Your task to perform on an android device: Search for pizza restaurants on Maps Image 0: 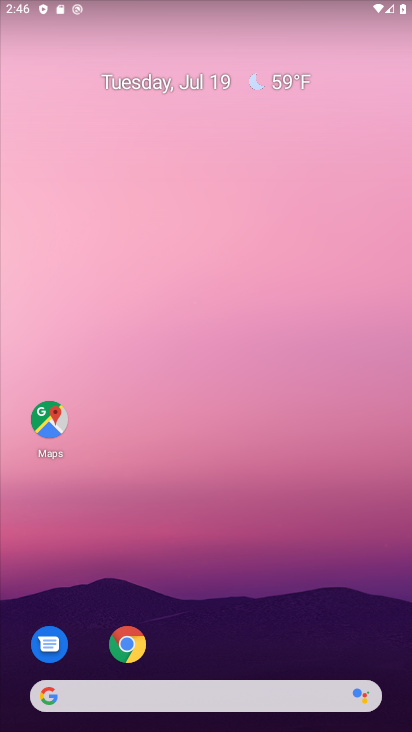
Step 0: drag from (282, 470) to (213, 20)
Your task to perform on an android device: Search for pizza restaurants on Maps Image 1: 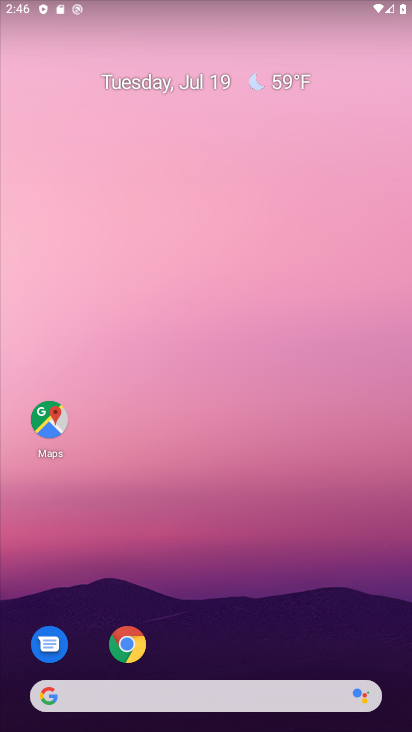
Step 1: drag from (211, 608) to (151, 188)
Your task to perform on an android device: Search for pizza restaurants on Maps Image 2: 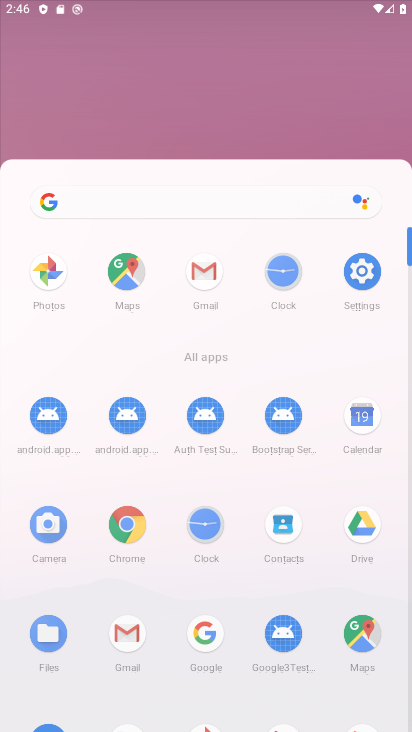
Step 2: drag from (135, 714) to (107, 180)
Your task to perform on an android device: Search for pizza restaurants on Maps Image 3: 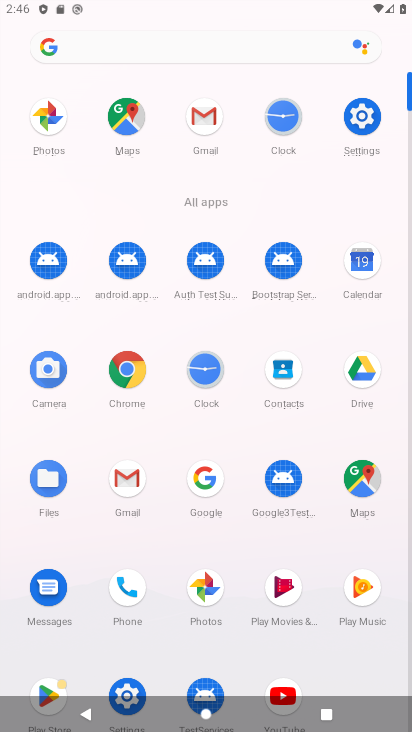
Step 3: click (119, 116)
Your task to perform on an android device: Search for pizza restaurants on Maps Image 4: 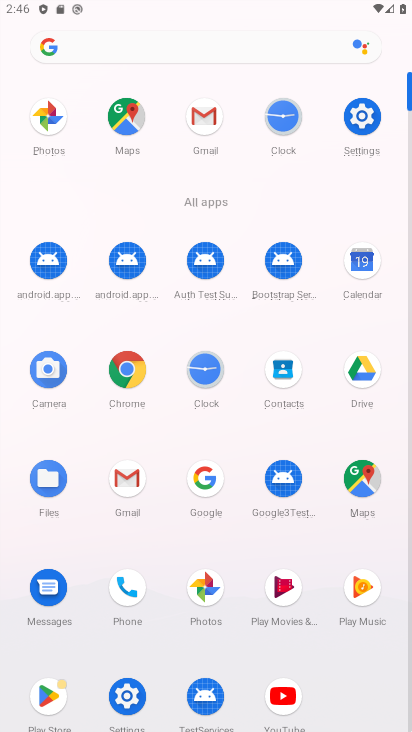
Step 4: click (131, 126)
Your task to perform on an android device: Search for pizza restaurants on Maps Image 5: 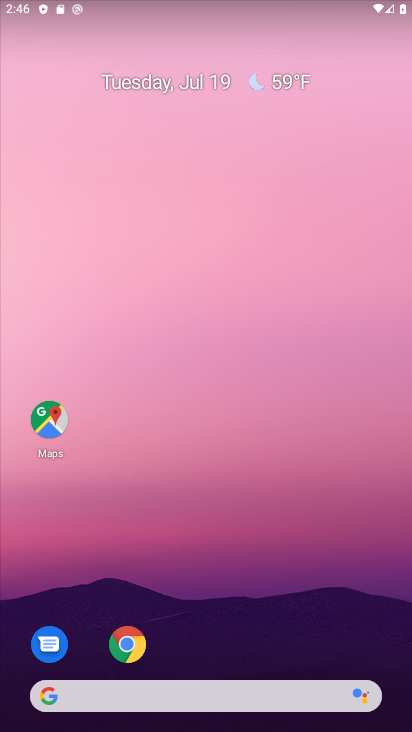
Step 5: click (131, 127)
Your task to perform on an android device: Search for pizza restaurants on Maps Image 6: 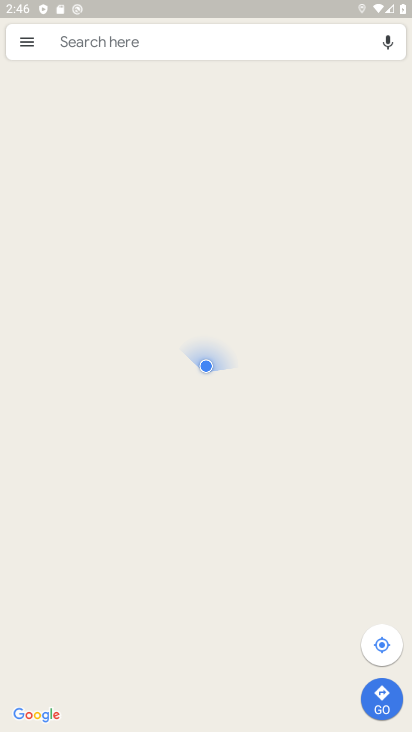
Step 6: click (60, 39)
Your task to perform on an android device: Search for pizza restaurants on Maps Image 7: 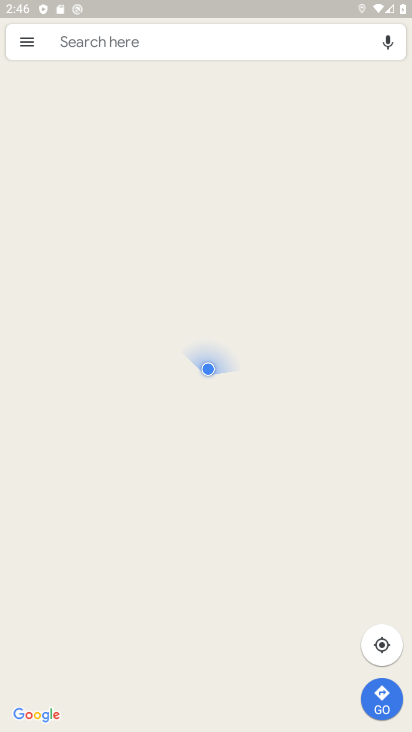
Step 7: click (63, 48)
Your task to perform on an android device: Search for pizza restaurants on Maps Image 8: 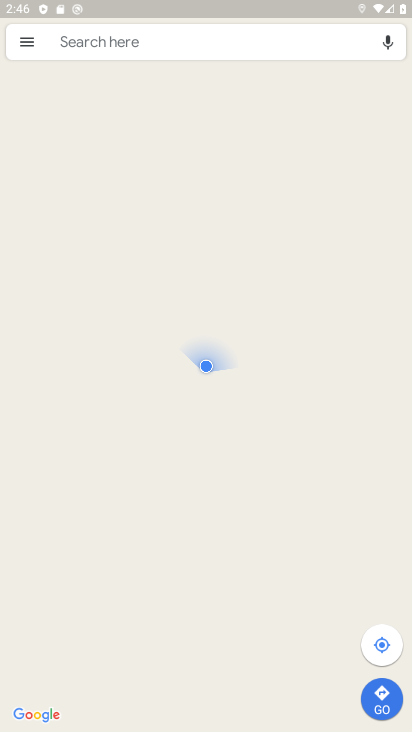
Step 8: click (79, 37)
Your task to perform on an android device: Search for pizza restaurants on Maps Image 9: 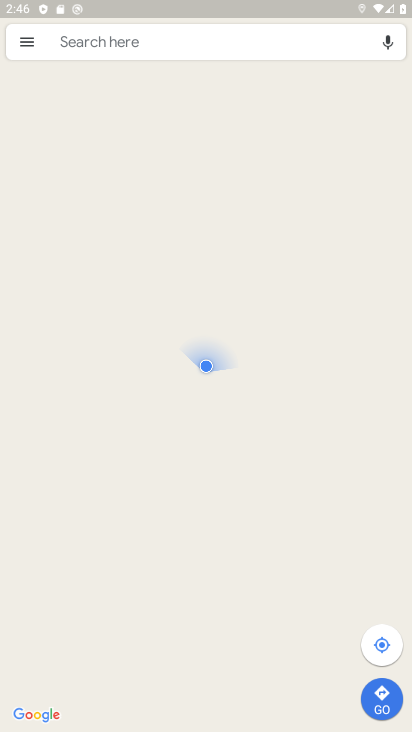
Step 9: click (81, 37)
Your task to perform on an android device: Search for pizza restaurants on Maps Image 10: 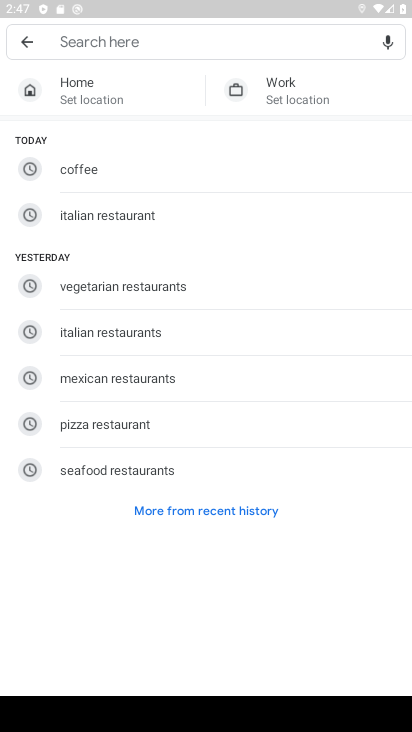
Step 10: type "pizza restaurants"
Your task to perform on an android device: Search for pizza restaurants on Maps Image 11: 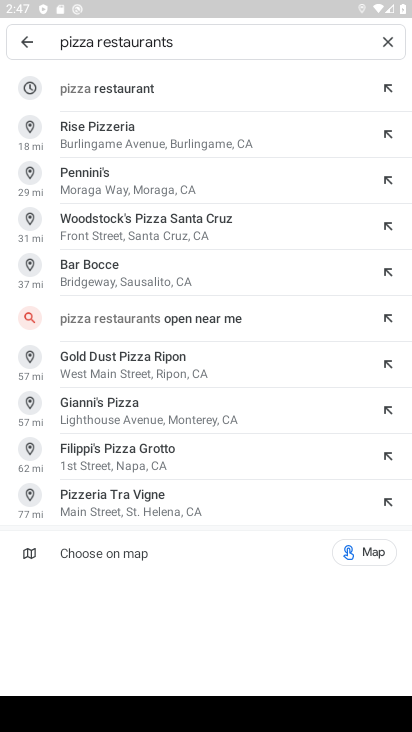
Step 11: click (159, 107)
Your task to perform on an android device: Search for pizza restaurants on Maps Image 12: 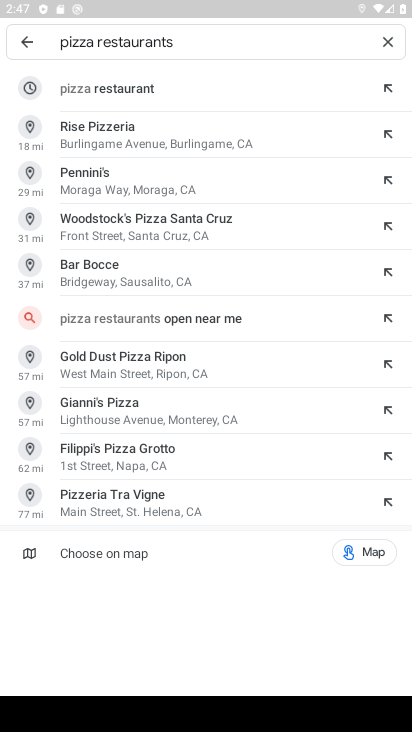
Step 12: click (159, 104)
Your task to perform on an android device: Search for pizza restaurants on Maps Image 13: 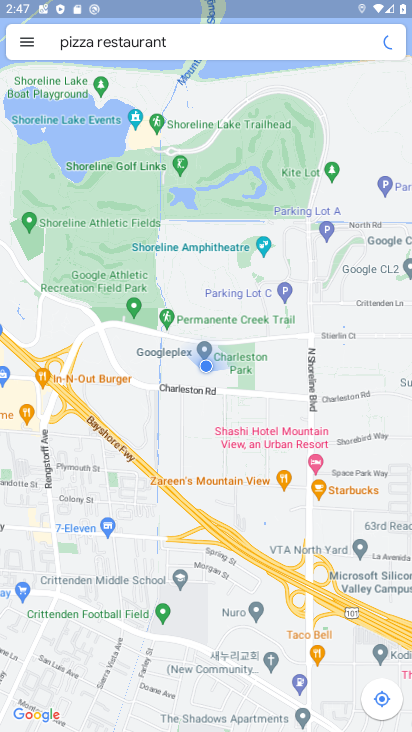
Step 13: task complete